Your task to perform on an android device: check storage Image 0: 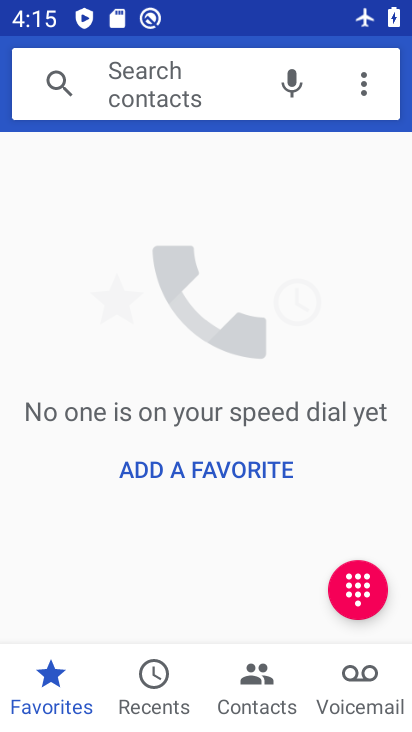
Step 0: press home button
Your task to perform on an android device: check storage Image 1: 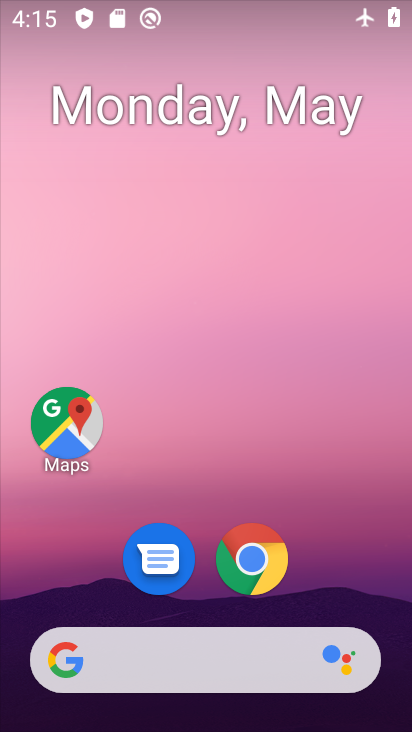
Step 1: drag from (260, 681) to (313, 24)
Your task to perform on an android device: check storage Image 2: 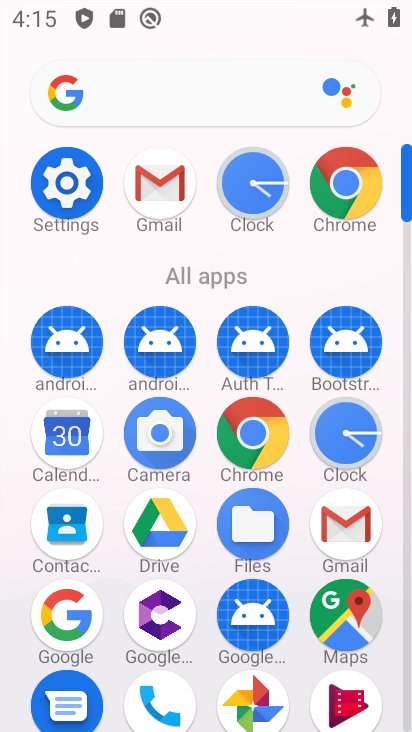
Step 2: click (77, 186)
Your task to perform on an android device: check storage Image 3: 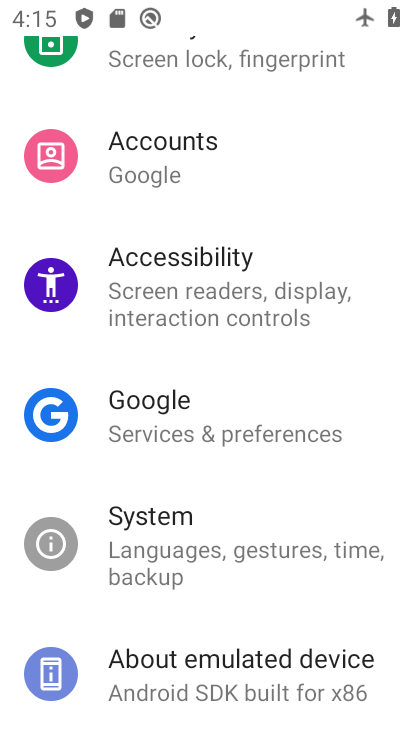
Step 3: drag from (274, 347) to (287, 719)
Your task to perform on an android device: check storage Image 4: 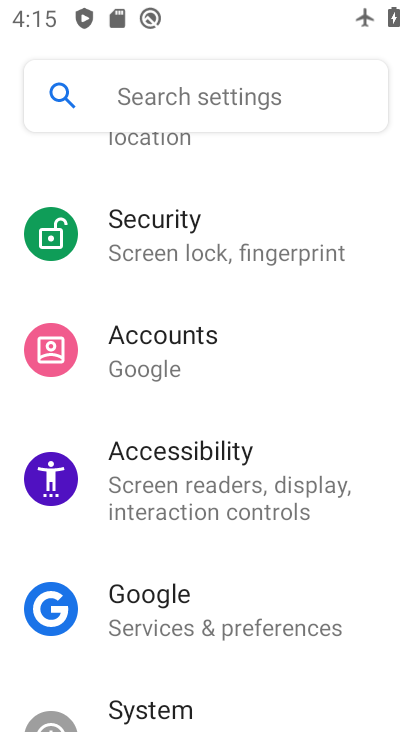
Step 4: drag from (266, 167) to (293, 686)
Your task to perform on an android device: check storage Image 5: 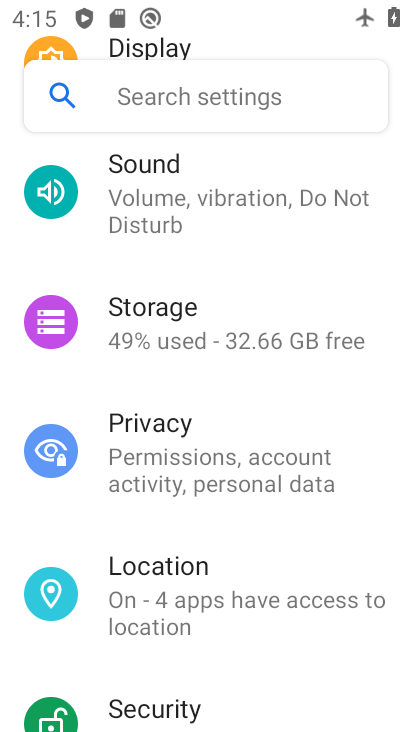
Step 5: click (213, 328)
Your task to perform on an android device: check storage Image 6: 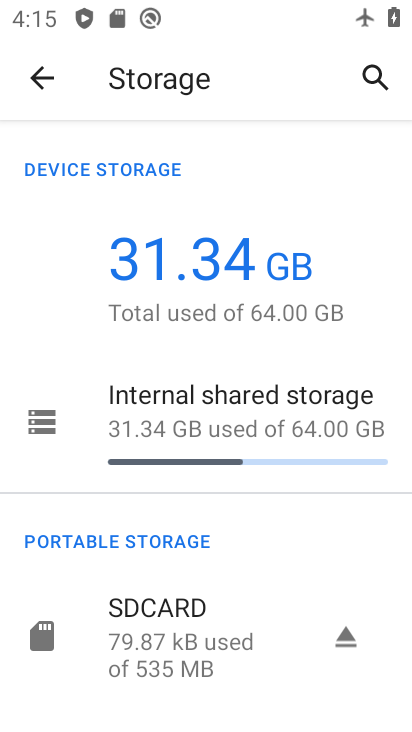
Step 6: task complete